Your task to perform on an android device: empty trash in the gmail app Image 0: 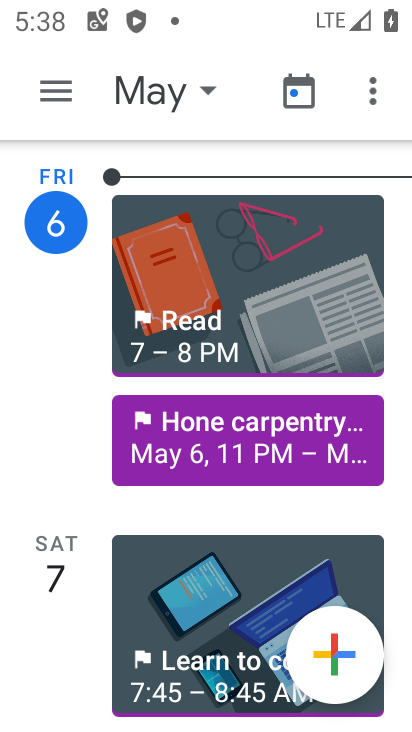
Step 0: press home button
Your task to perform on an android device: empty trash in the gmail app Image 1: 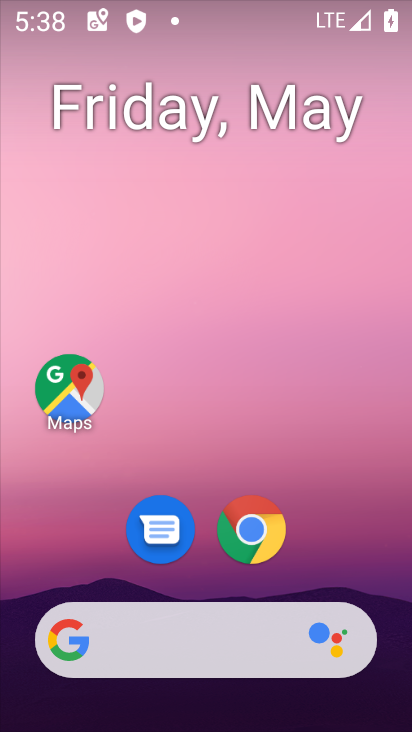
Step 1: drag from (205, 569) to (247, 54)
Your task to perform on an android device: empty trash in the gmail app Image 2: 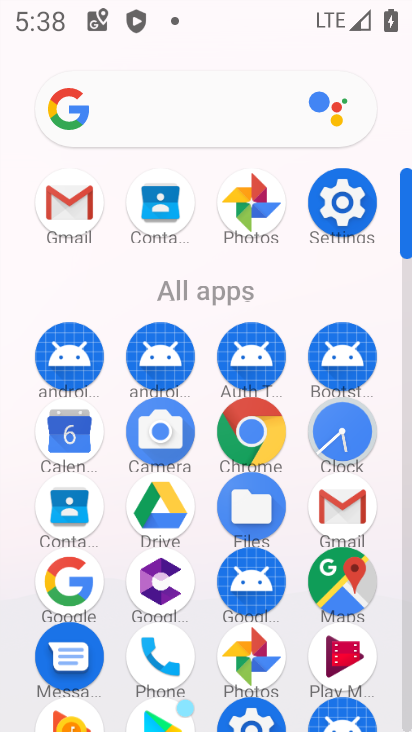
Step 2: click (50, 204)
Your task to perform on an android device: empty trash in the gmail app Image 3: 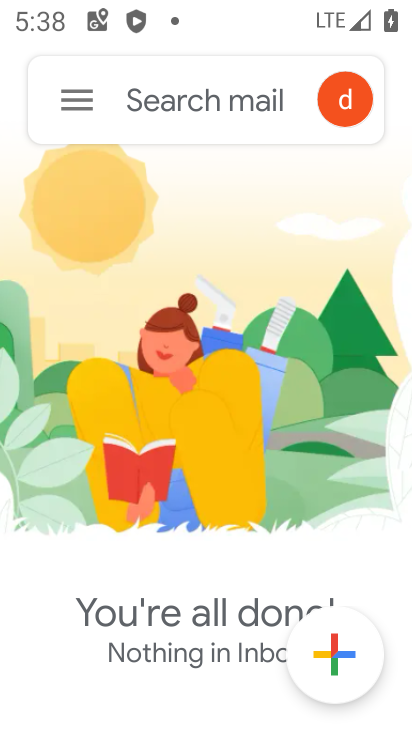
Step 3: click (98, 86)
Your task to perform on an android device: empty trash in the gmail app Image 4: 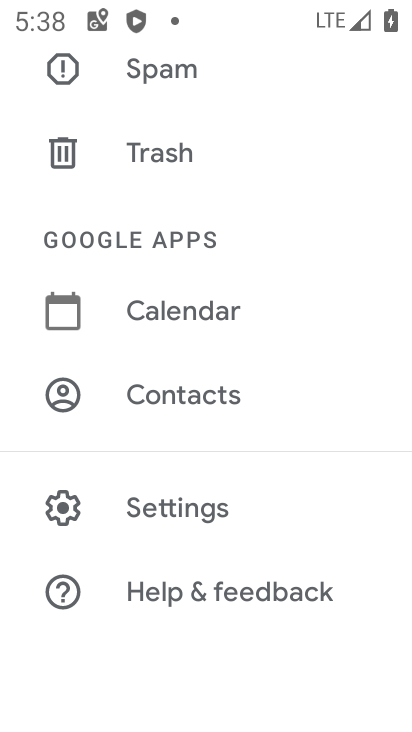
Step 4: click (189, 152)
Your task to perform on an android device: empty trash in the gmail app Image 5: 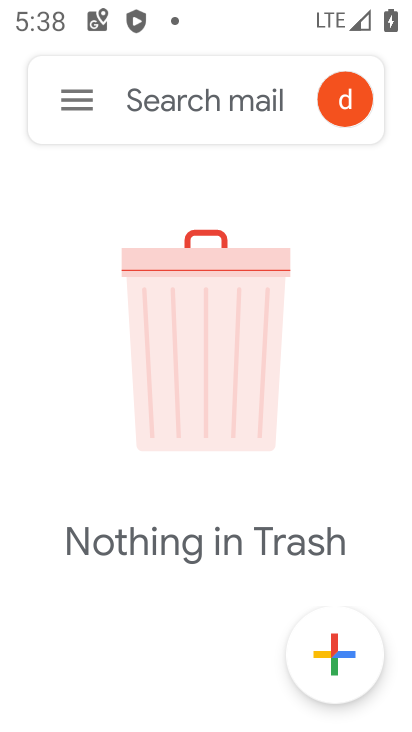
Step 5: task complete